Your task to perform on an android device: Is it going to rain this weekend? Image 0: 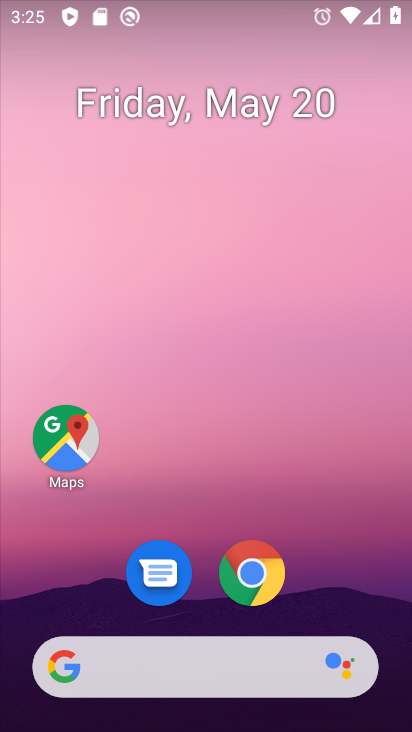
Step 0: drag from (217, 630) to (208, 42)
Your task to perform on an android device: Is it going to rain this weekend? Image 1: 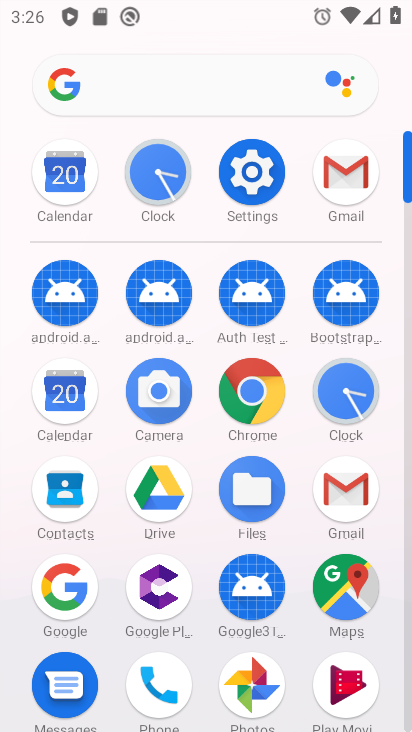
Step 1: click (76, 578)
Your task to perform on an android device: Is it going to rain this weekend? Image 2: 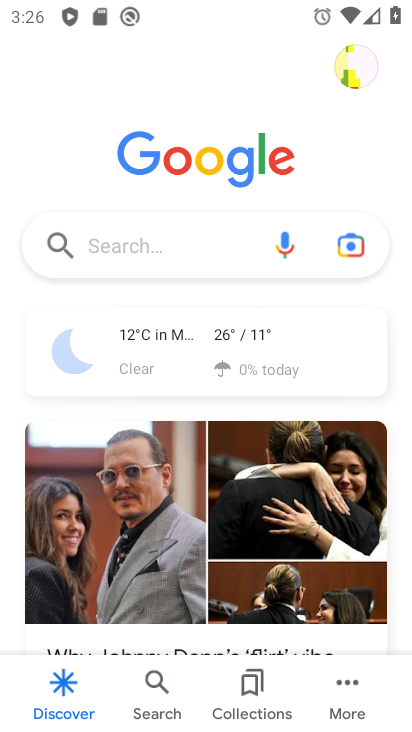
Step 2: click (105, 250)
Your task to perform on an android device: Is it going to rain this weekend? Image 3: 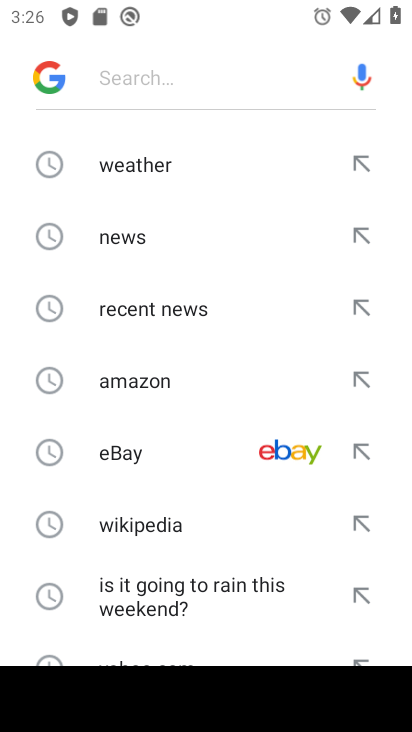
Step 3: click (128, 170)
Your task to perform on an android device: Is it going to rain this weekend? Image 4: 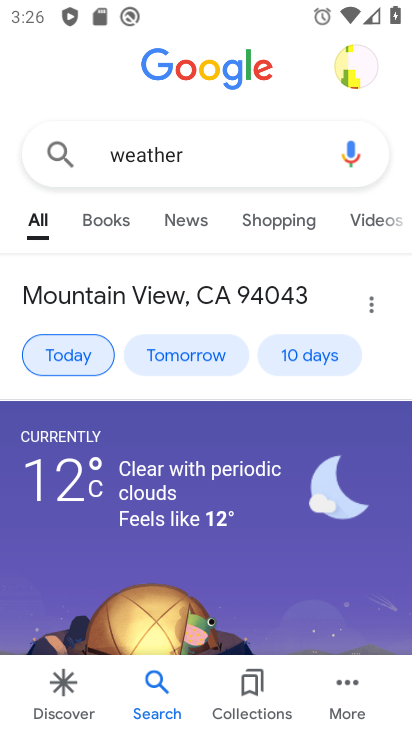
Step 4: click (302, 347)
Your task to perform on an android device: Is it going to rain this weekend? Image 5: 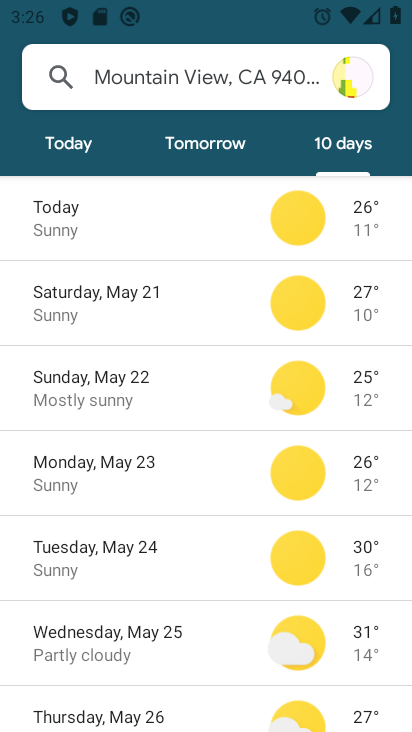
Step 5: task complete